Your task to perform on an android device: check the backup settings in the google photos Image 0: 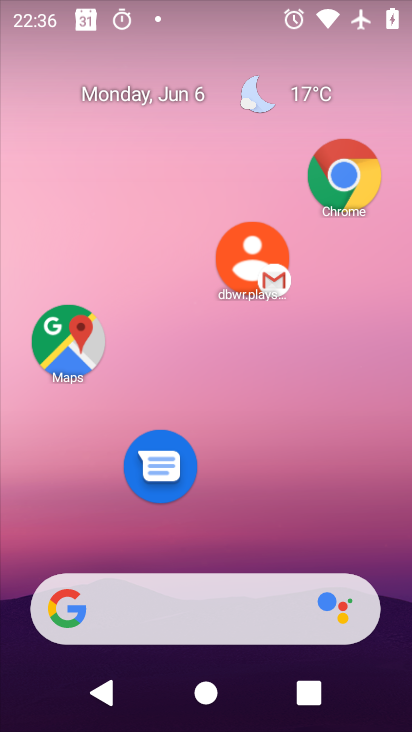
Step 0: drag from (202, 564) to (151, 171)
Your task to perform on an android device: check the backup settings in the google photos Image 1: 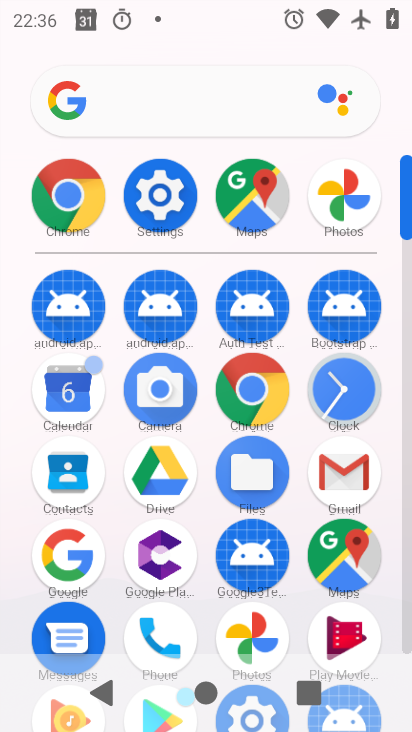
Step 1: click (244, 622)
Your task to perform on an android device: check the backup settings in the google photos Image 2: 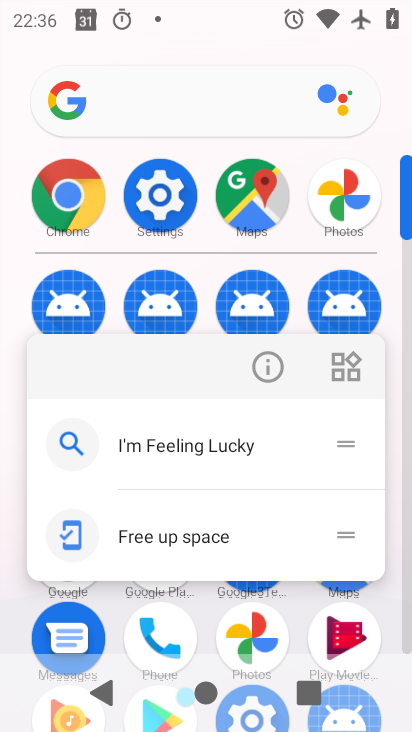
Step 2: click (260, 365)
Your task to perform on an android device: check the backup settings in the google photos Image 3: 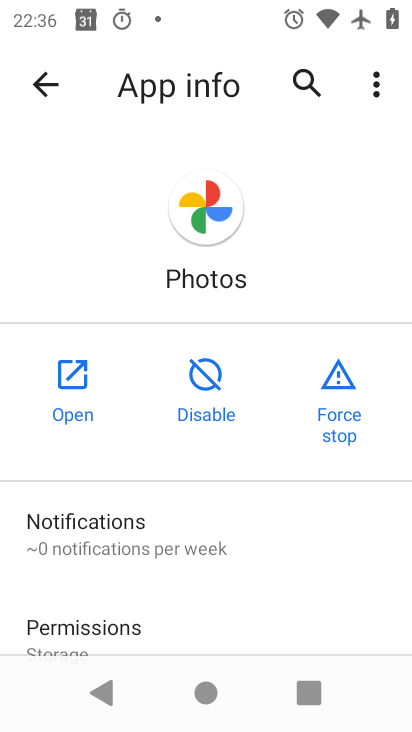
Step 3: click (66, 389)
Your task to perform on an android device: check the backup settings in the google photos Image 4: 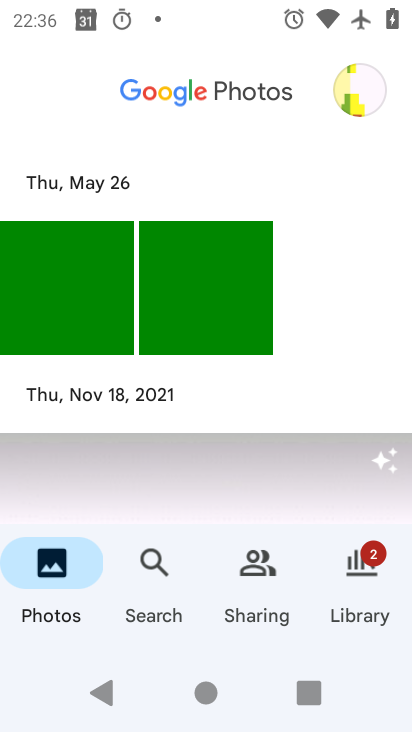
Step 4: click (349, 87)
Your task to perform on an android device: check the backup settings in the google photos Image 5: 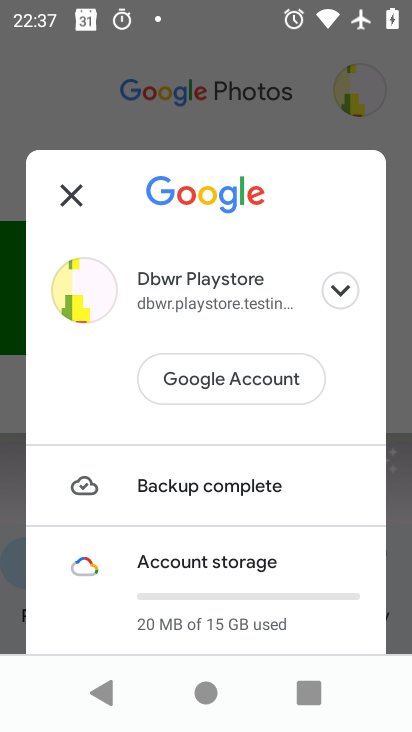
Step 5: drag from (176, 530) to (177, 64)
Your task to perform on an android device: check the backup settings in the google photos Image 6: 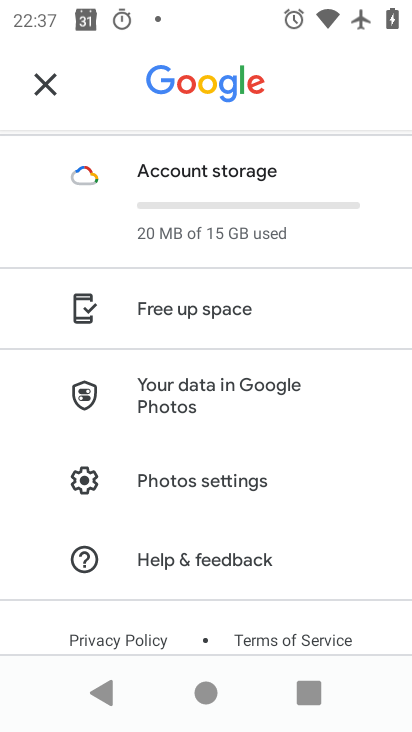
Step 6: click (173, 487)
Your task to perform on an android device: check the backup settings in the google photos Image 7: 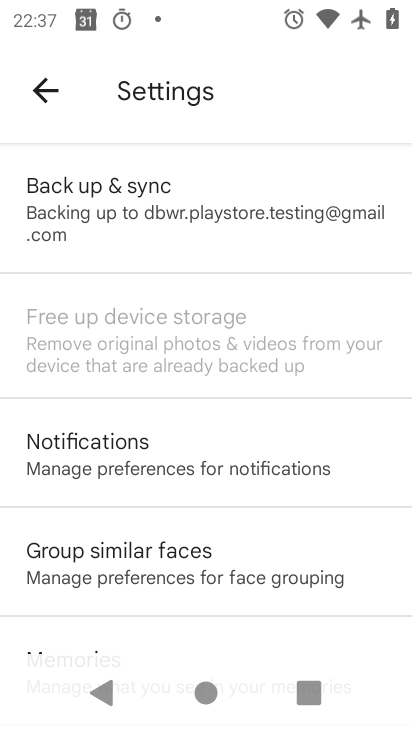
Step 7: click (186, 199)
Your task to perform on an android device: check the backup settings in the google photos Image 8: 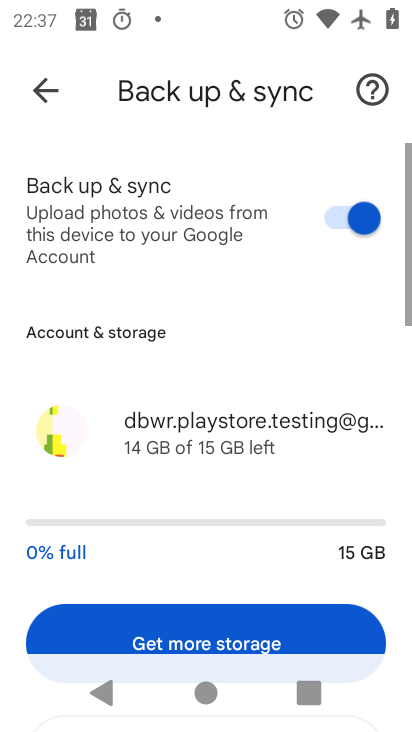
Step 8: task complete